Your task to perform on an android device: choose inbox layout in the gmail app Image 0: 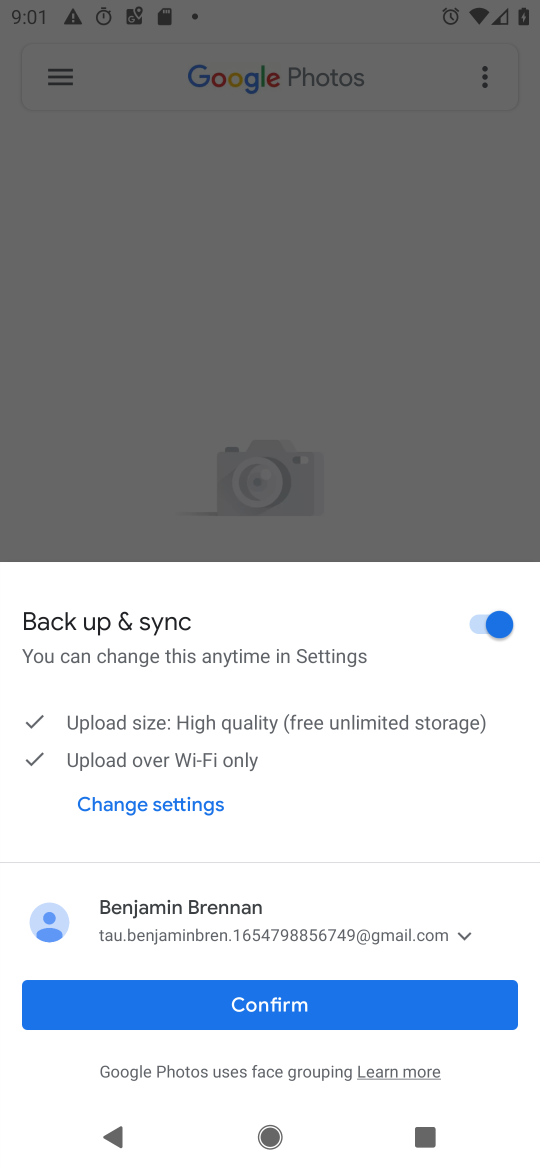
Step 0: drag from (271, 709) to (397, 259)
Your task to perform on an android device: choose inbox layout in the gmail app Image 1: 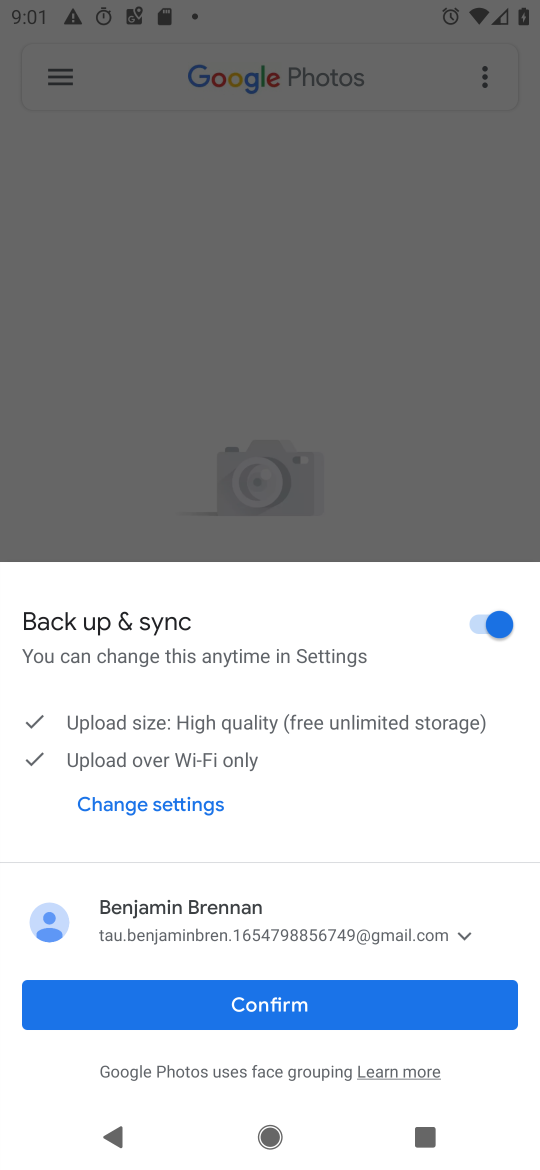
Step 1: drag from (279, 827) to (325, 561)
Your task to perform on an android device: choose inbox layout in the gmail app Image 2: 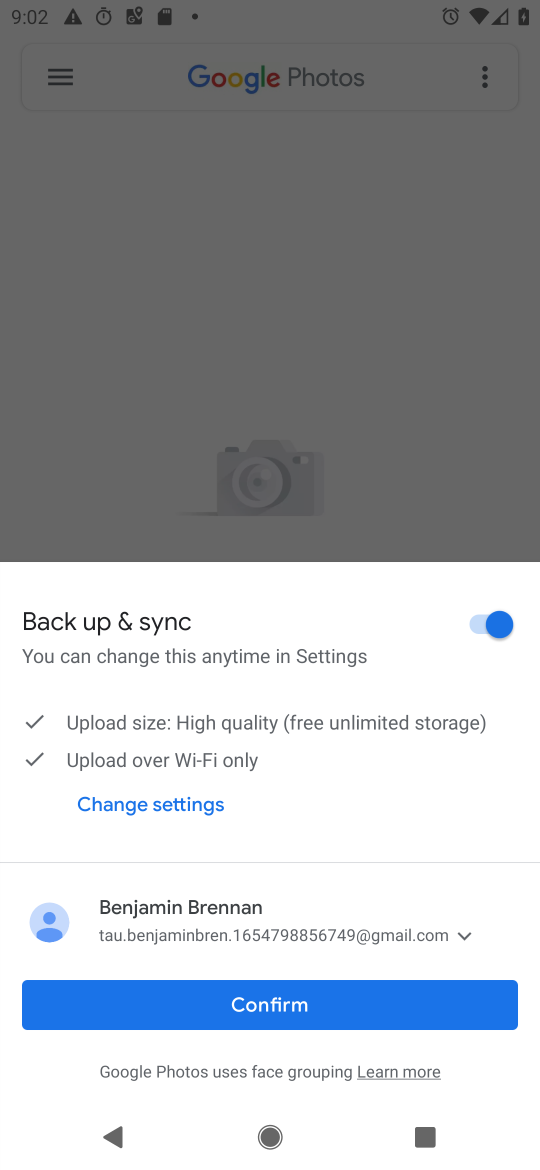
Step 2: click (146, 186)
Your task to perform on an android device: choose inbox layout in the gmail app Image 3: 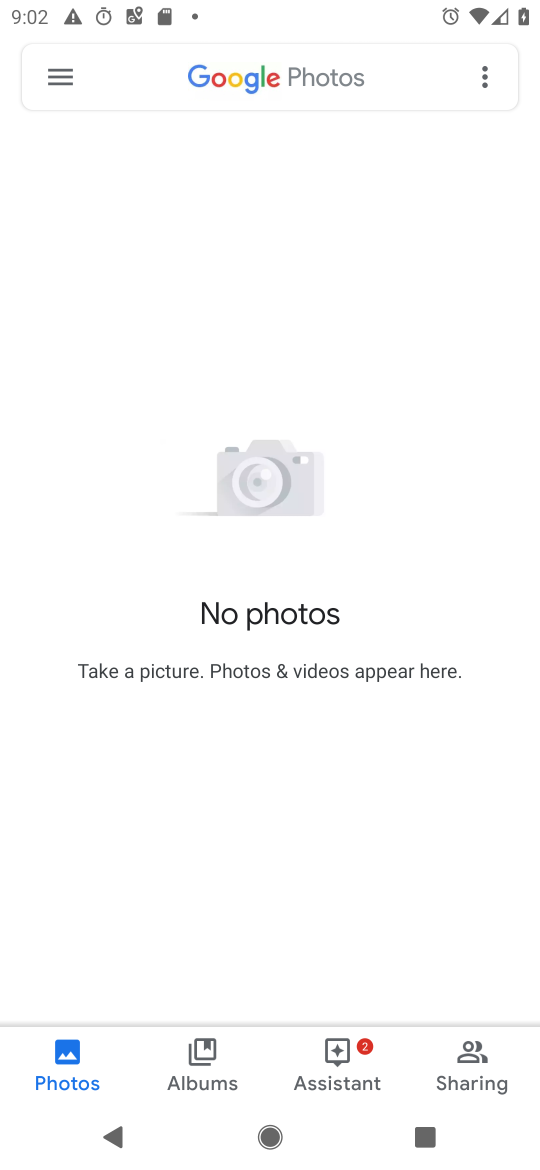
Step 3: click (58, 97)
Your task to perform on an android device: choose inbox layout in the gmail app Image 4: 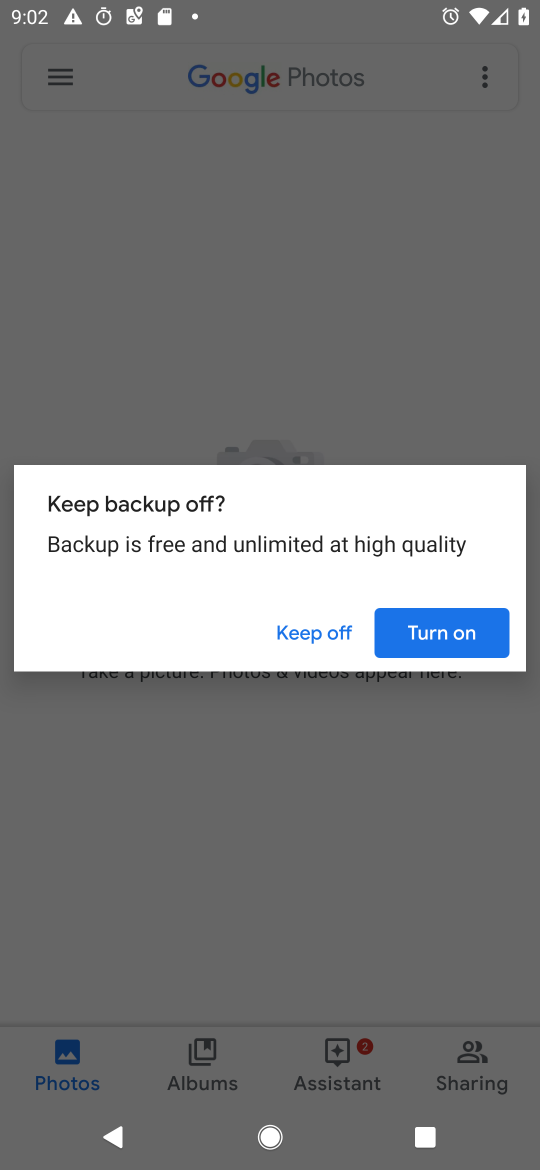
Step 4: click (62, 67)
Your task to perform on an android device: choose inbox layout in the gmail app Image 5: 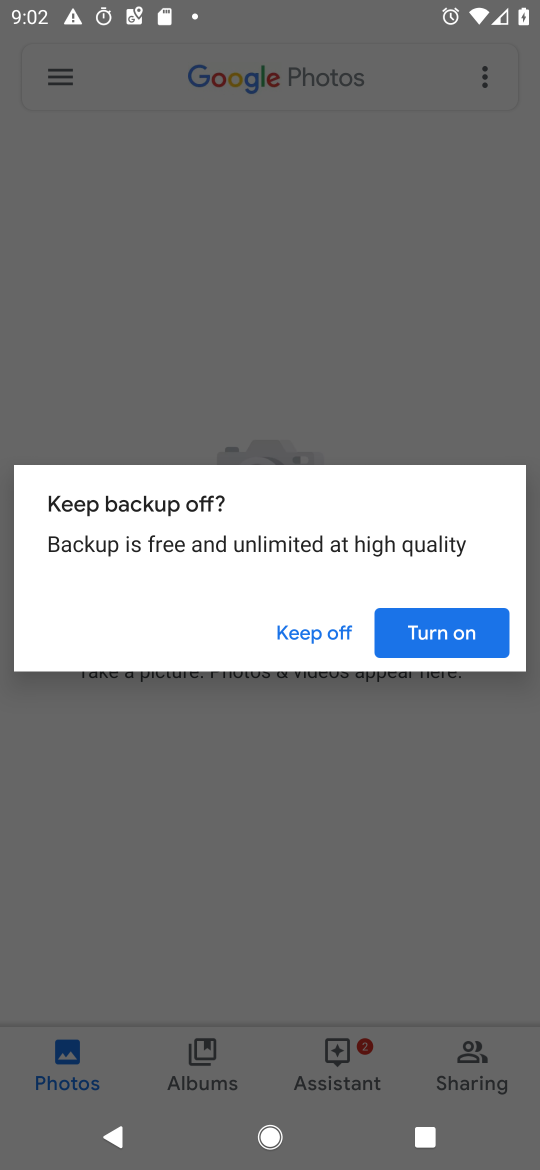
Step 5: press home button
Your task to perform on an android device: choose inbox layout in the gmail app Image 6: 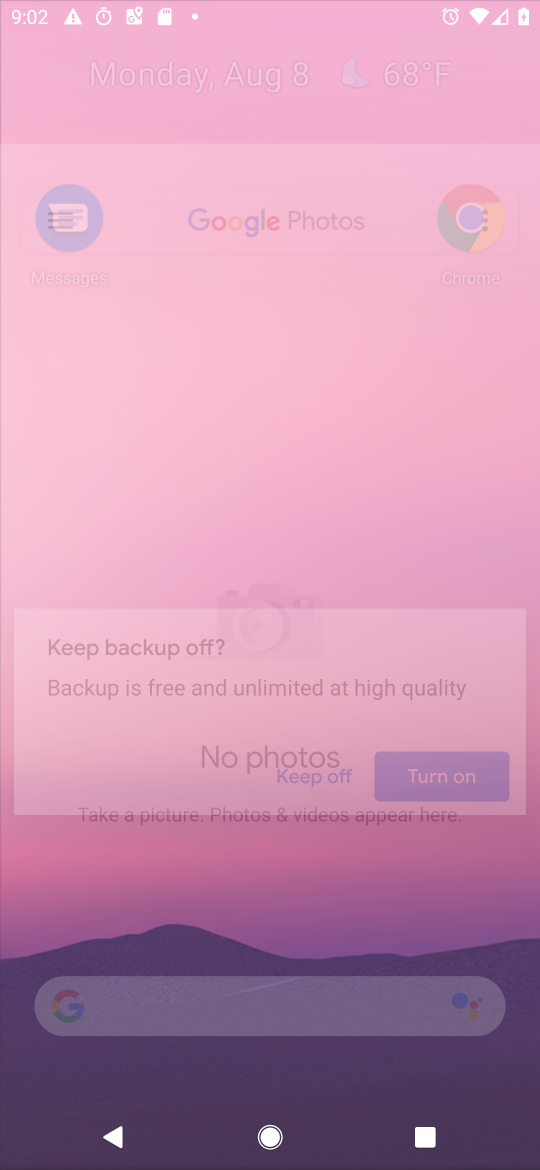
Step 6: drag from (311, 951) to (288, 135)
Your task to perform on an android device: choose inbox layout in the gmail app Image 7: 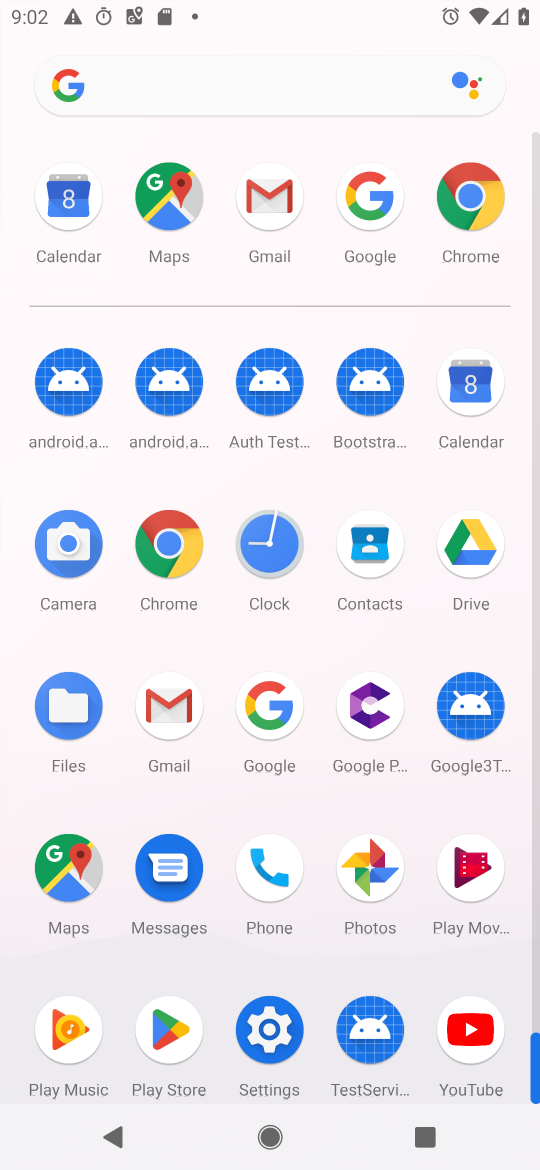
Step 7: drag from (271, 877) to (318, 520)
Your task to perform on an android device: choose inbox layout in the gmail app Image 8: 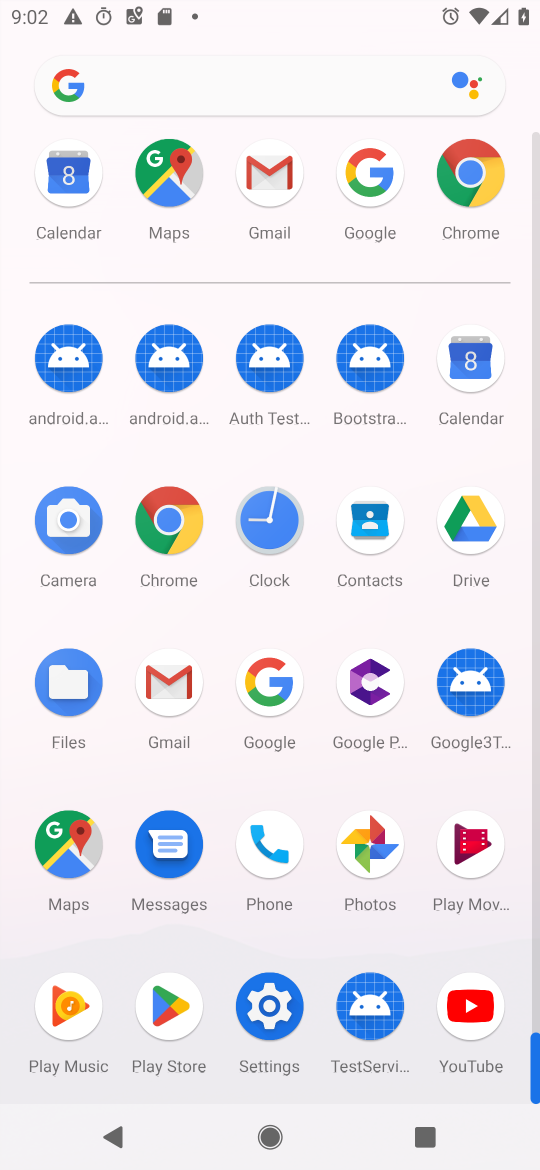
Step 8: click (166, 672)
Your task to perform on an android device: choose inbox layout in the gmail app Image 9: 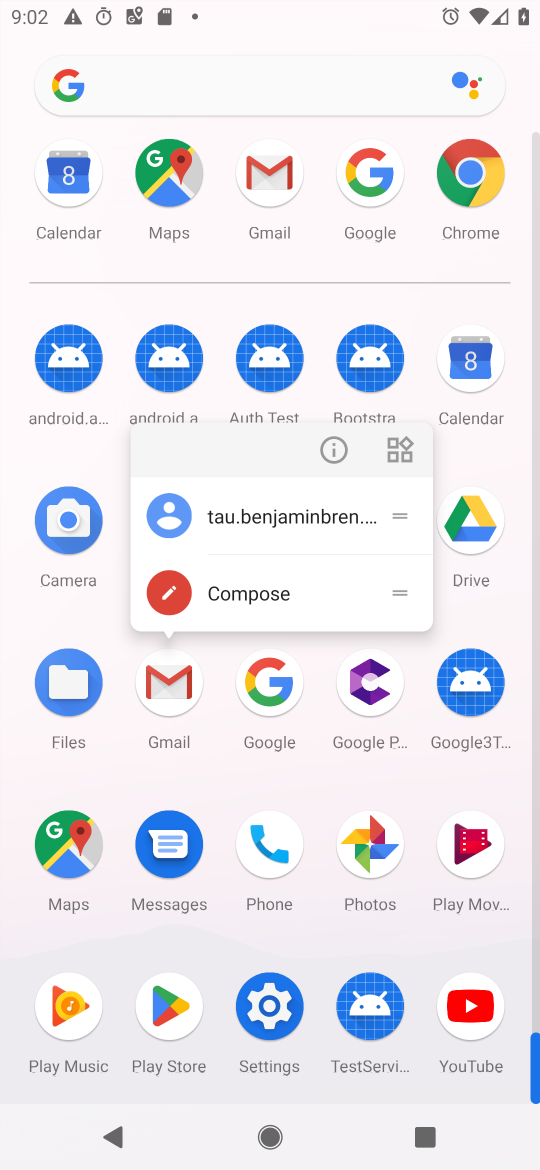
Step 9: click (322, 435)
Your task to perform on an android device: choose inbox layout in the gmail app Image 10: 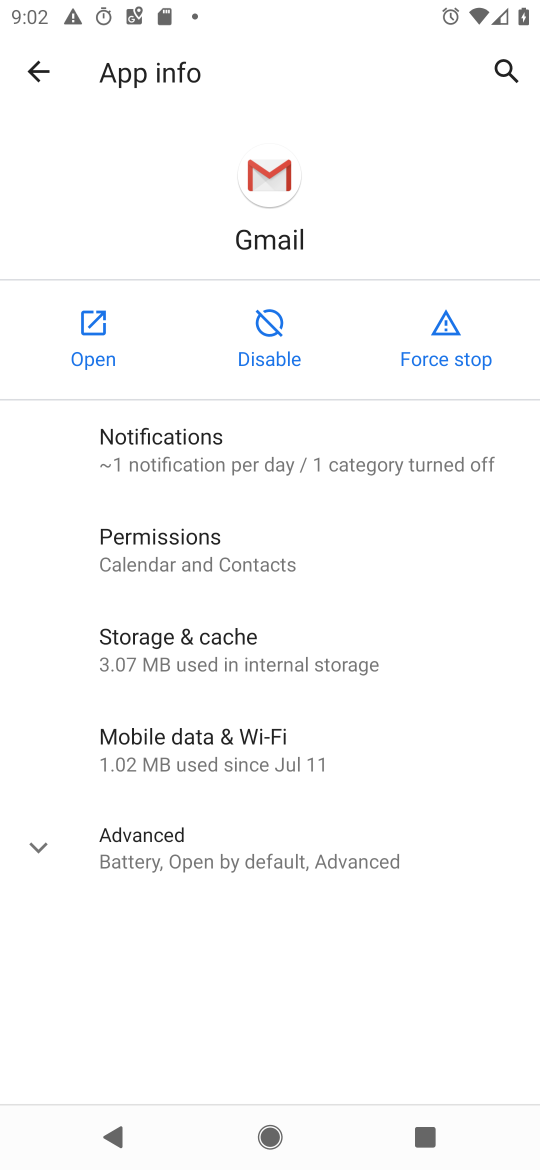
Step 10: click (63, 321)
Your task to perform on an android device: choose inbox layout in the gmail app Image 11: 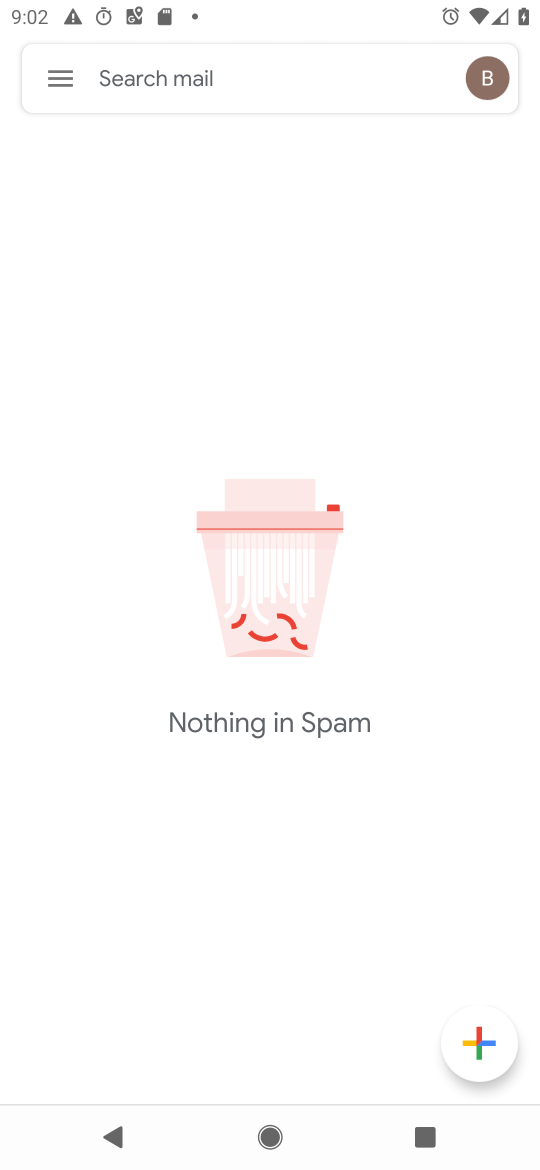
Step 11: click (67, 82)
Your task to perform on an android device: choose inbox layout in the gmail app Image 12: 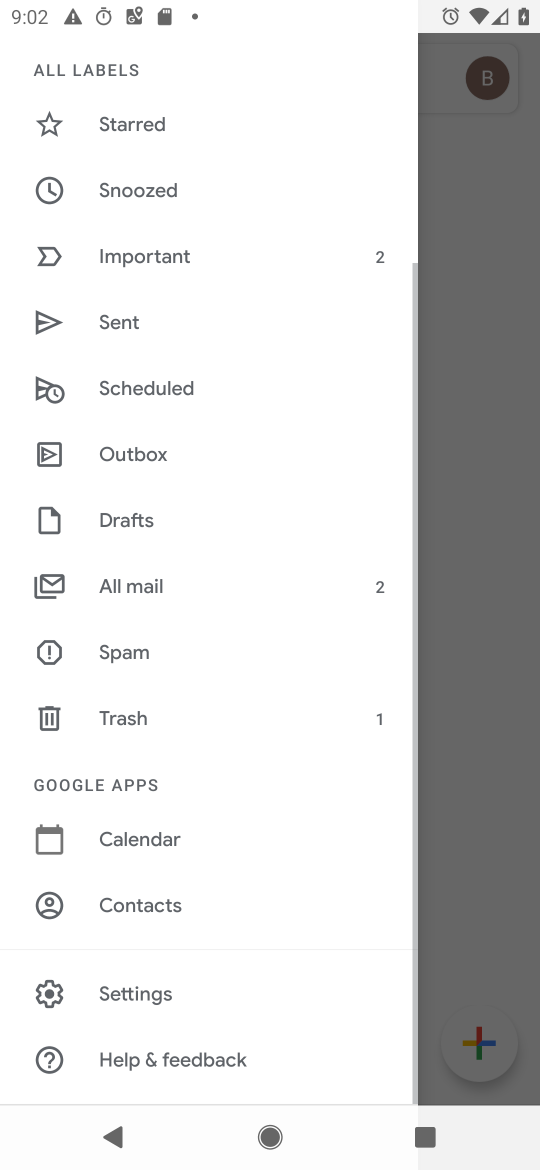
Step 12: drag from (128, 165) to (297, 1155)
Your task to perform on an android device: choose inbox layout in the gmail app Image 13: 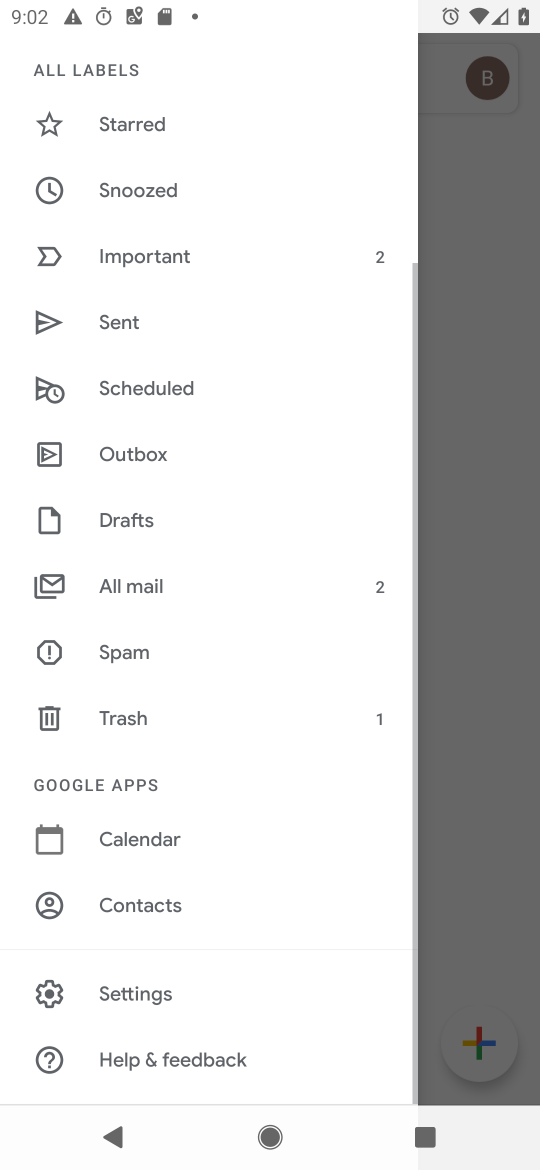
Step 13: drag from (215, 205) to (355, 995)
Your task to perform on an android device: choose inbox layout in the gmail app Image 14: 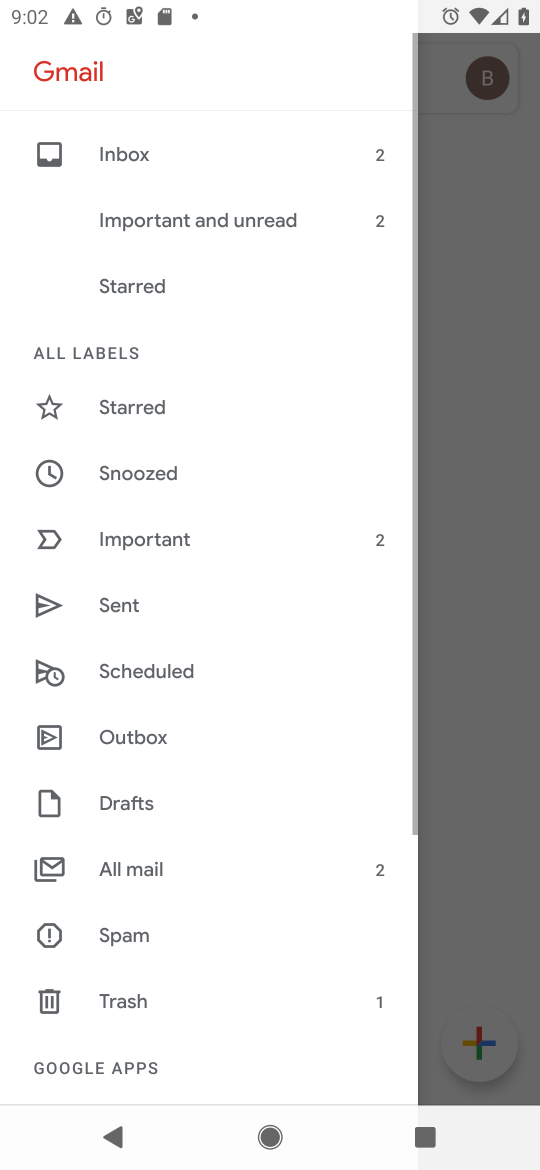
Step 14: click (125, 142)
Your task to perform on an android device: choose inbox layout in the gmail app Image 15: 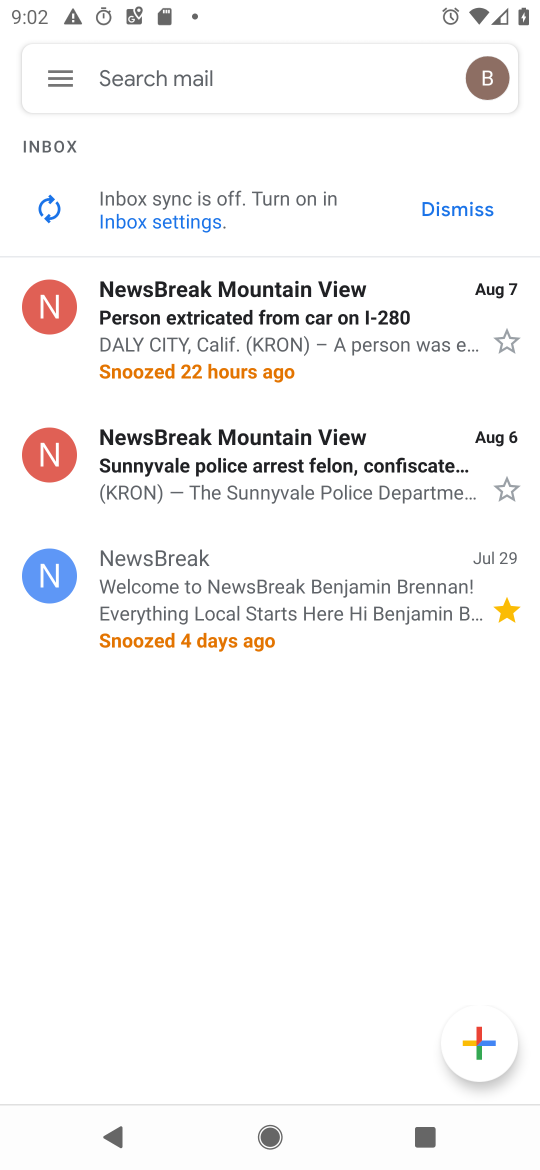
Step 15: task complete